Your task to perform on an android device: visit the assistant section in the google photos Image 0: 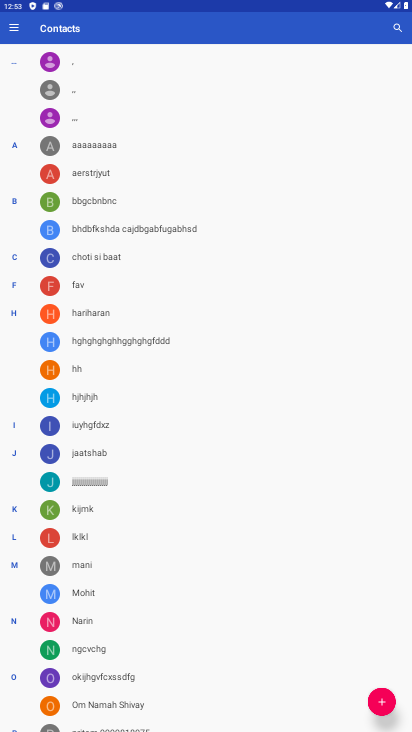
Step 0: press home button
Your task to perform on an android device: visit the assistant section in the google photos Image 1: 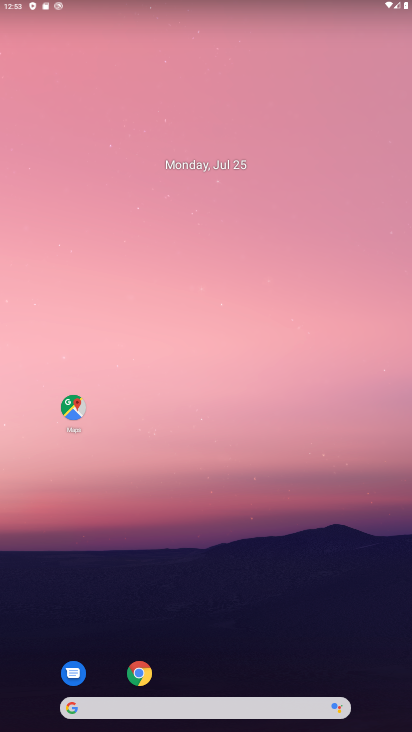
Step 1: drag from (374, 666) to (347, 119)
Your task to perform on an android device: visit the assistant section in the google photos Image 2: 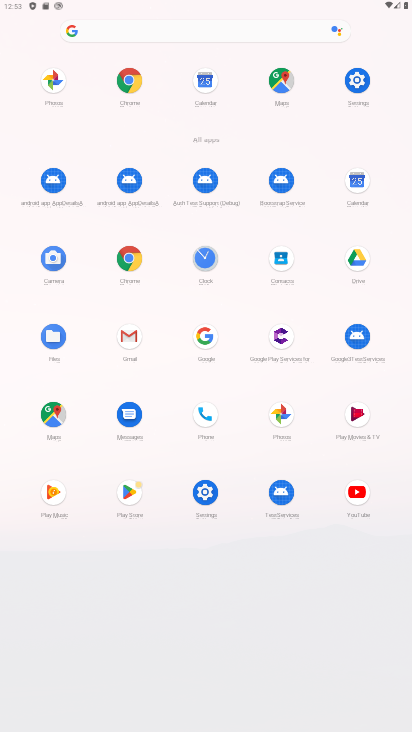
Step 2: click (281, 414)
Your task to perform on an android device: visit the assistant section in the google photos Image 3: 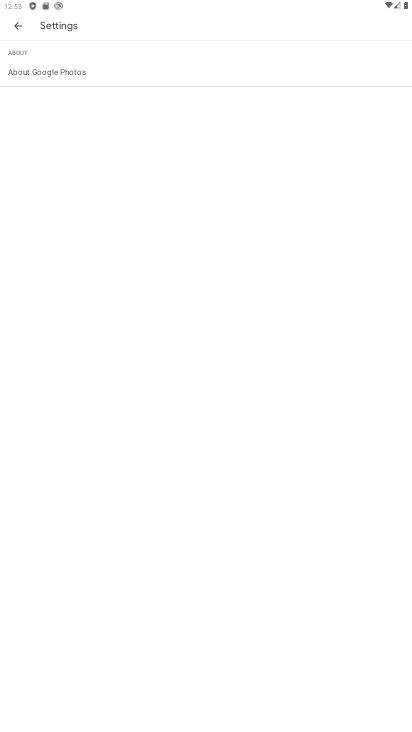
Step 3: press back button
Your task to perform on an android device: visit the assistant section in the google photos Image 4: 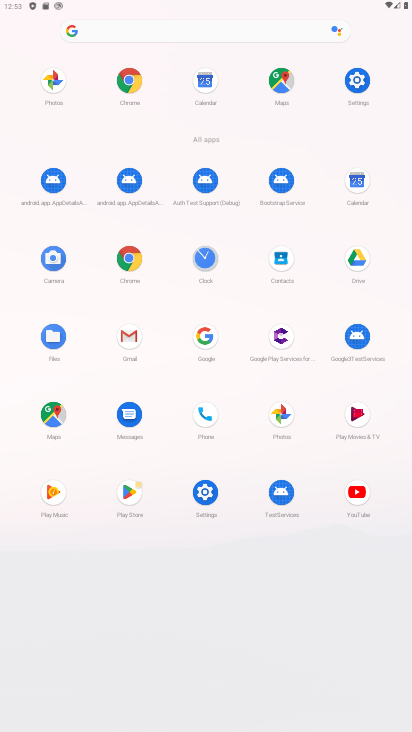
Step 4: click (282, 413)
Your task to perform on an android device: visit the assistant section in the google photos Image 5: 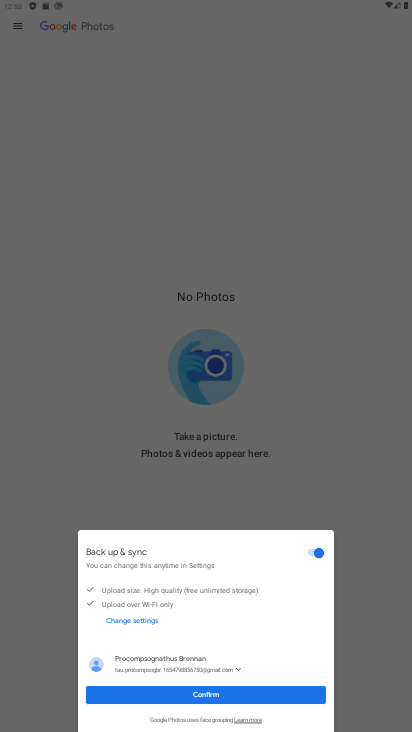
Step 5: click (195, 697)
Your task to perform on an android device: visit the assistant section in the google photos Image 6: 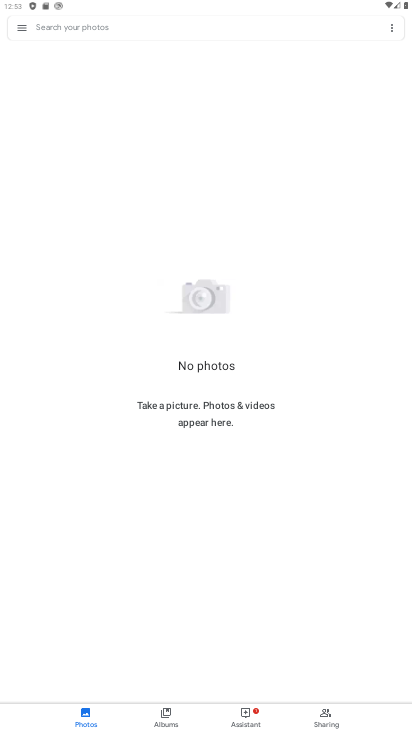
Step 6: click (239, 711)
Your task to perform on an android device: visit the assistant section in the google photos Image 7: 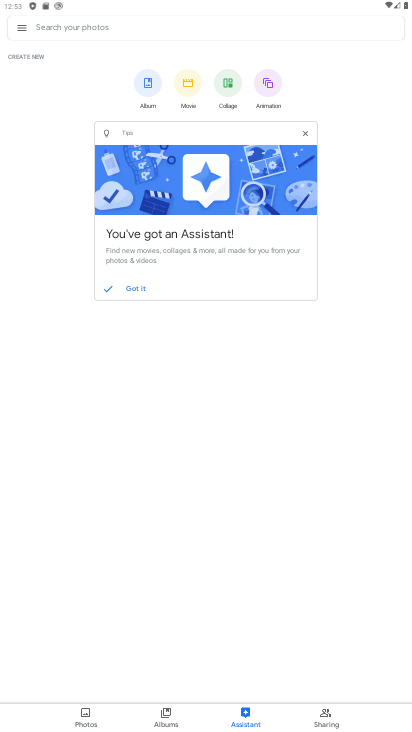
Step 7: task complete